Your task to perform on an android device: Open internet settings Image 0: 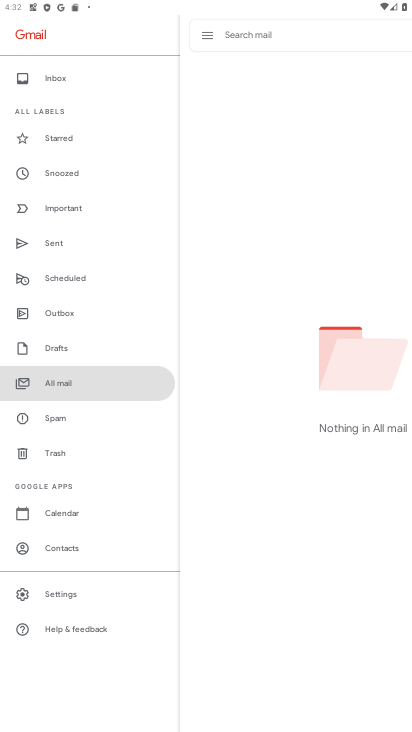
Step 0: press home button
Your task to perform on an android device: Open internet settings Image 1: 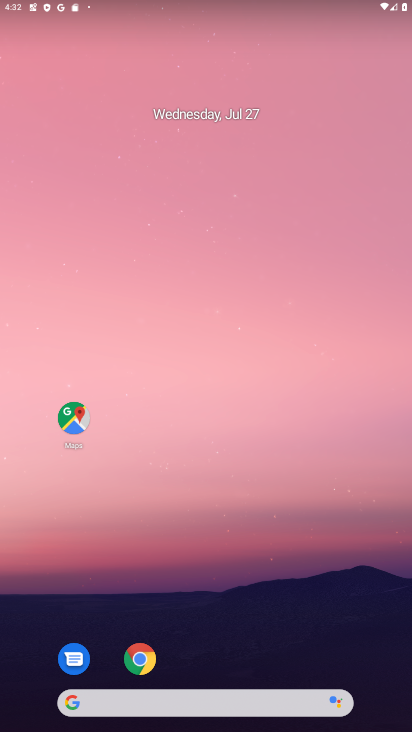
Step 1: drag from (261, 621) to (190, 153)
Your task to perform on an android device: Open internet settings Image 2: 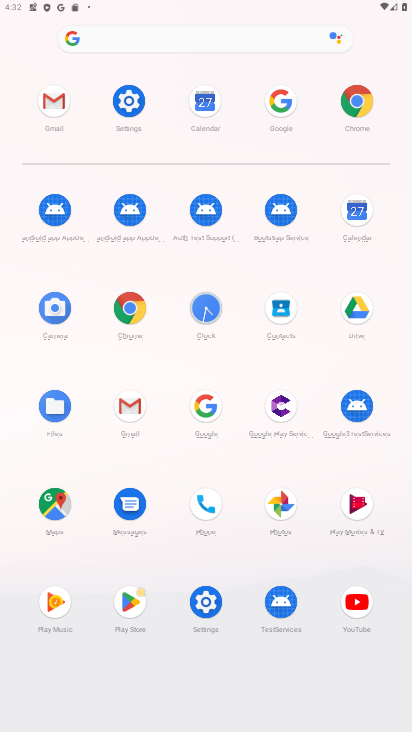
Step 2: click (126, 104)
Your task to perform on an android device: Open internet settings Image 3: 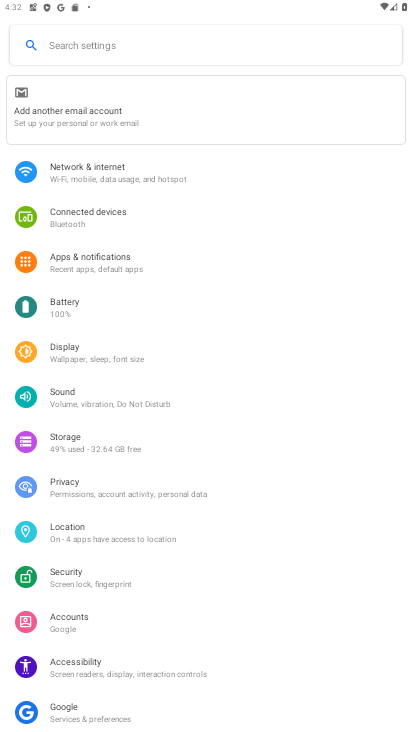
Step 3: click (159, 184)
Your task to perform on an android device: Open internet settings Image 4: 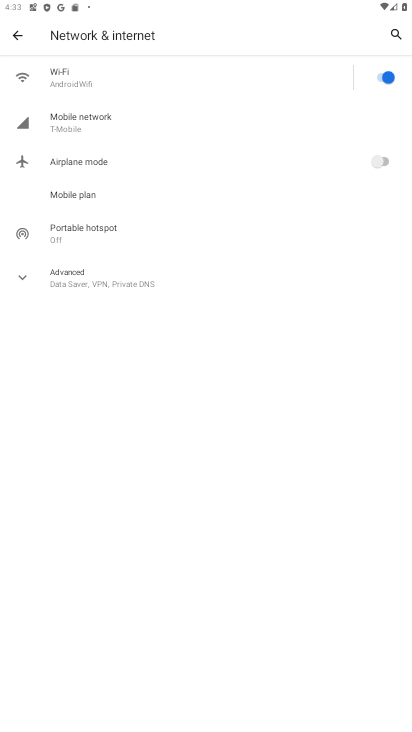
Step 4: task complete